Your task to perform on an android device: turn off wifi Image 0: 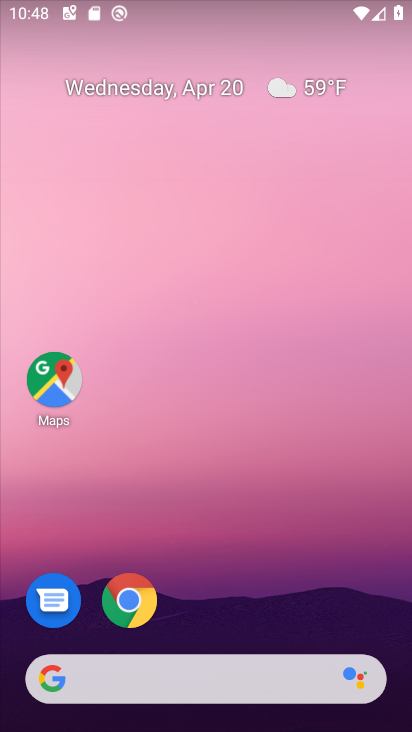
Step 0: drag from (334, 578) to (296, 17)
Your task to perform on an android device: turn off wifi Image 1: 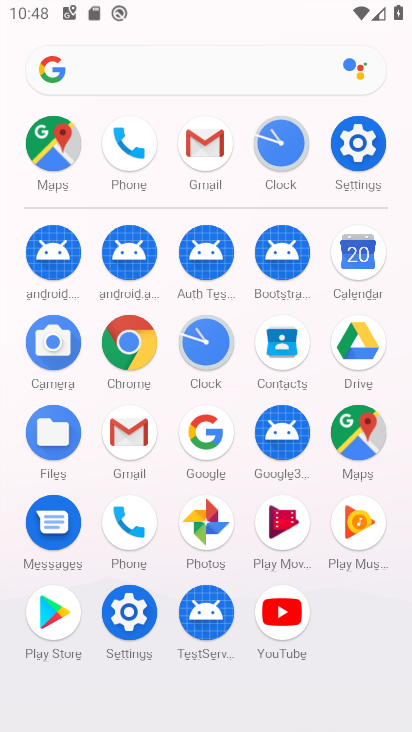
Step 1: click (361, 143)
Your task to perform on an android device: turn off wifi Image 2: 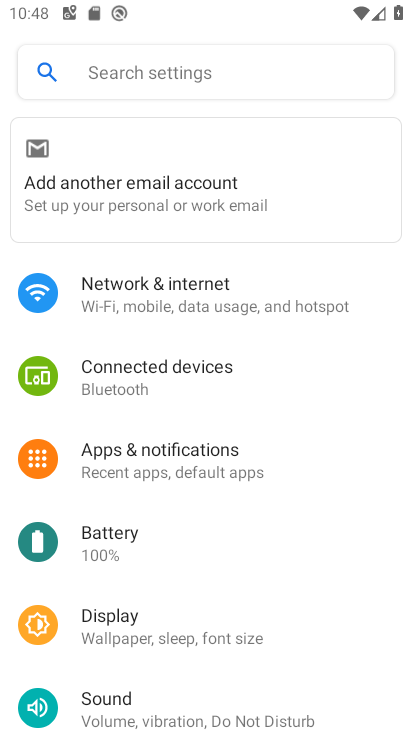
Step 2: click (234, 300)
Your task to perform on an android device: turn off wifi Image 3: 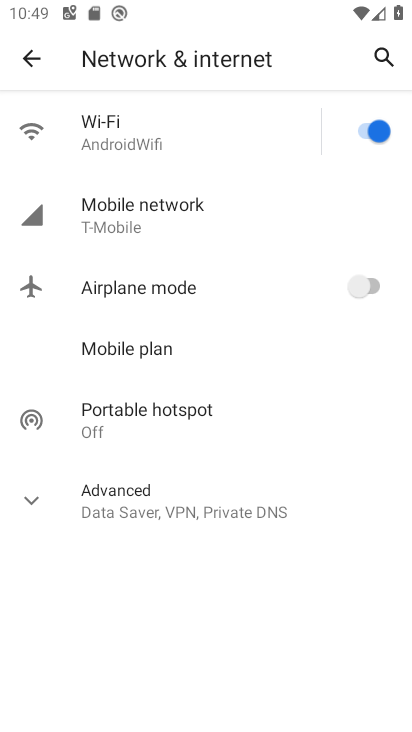
Step 3: click (191, 128)
Your task to perform on an android device: turn off wifi Image 4: 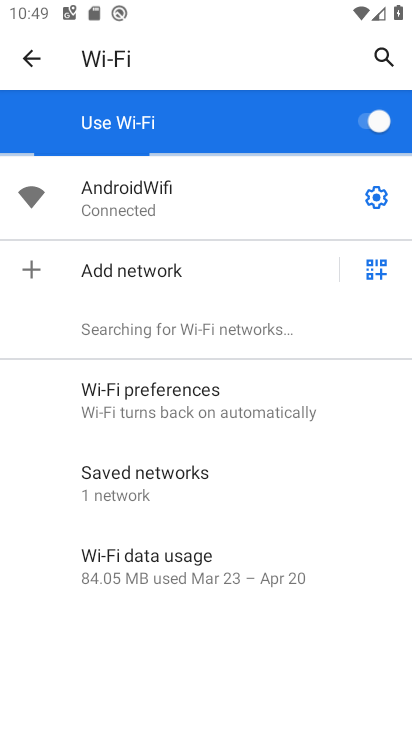
Step 4: click (366, 121)
Your task to perform on an android device: turn off wifi Image 5: 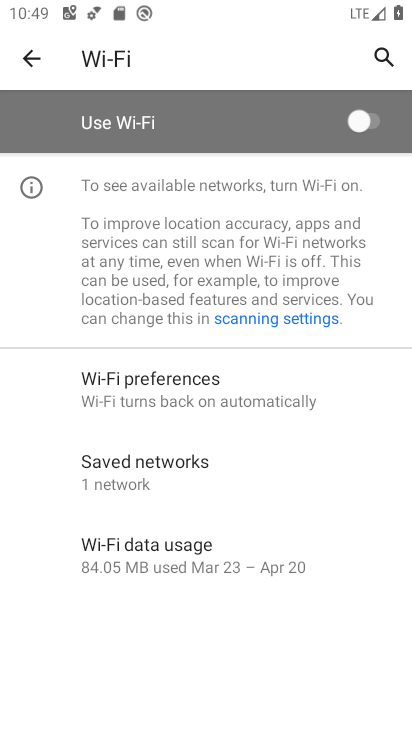
Step 5: task complete